Your task to perform on an android device: check out phone information Image 0: 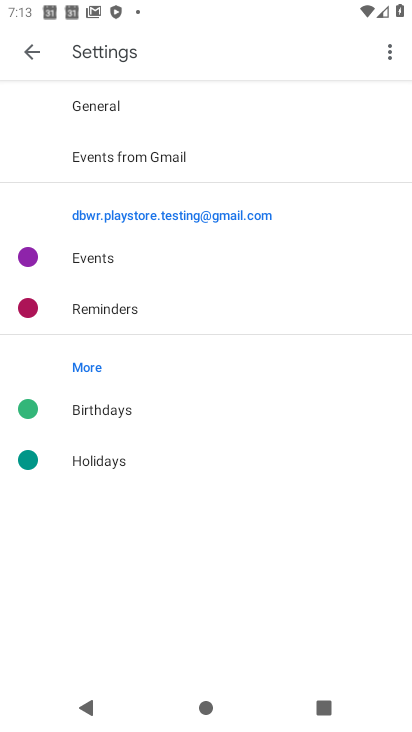
Step 0: press home button
Your task to perform on an android device: check out phone information Image 1: 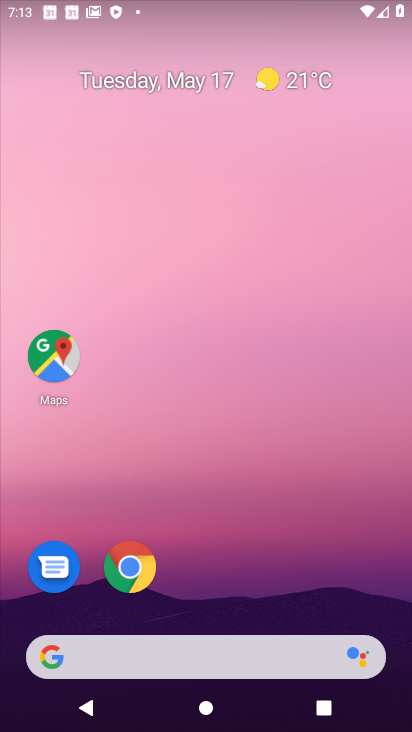
Step 1: drag from (244, 531) to (124, 75)
Your task to perform on an android device: check out phone information Image 2: 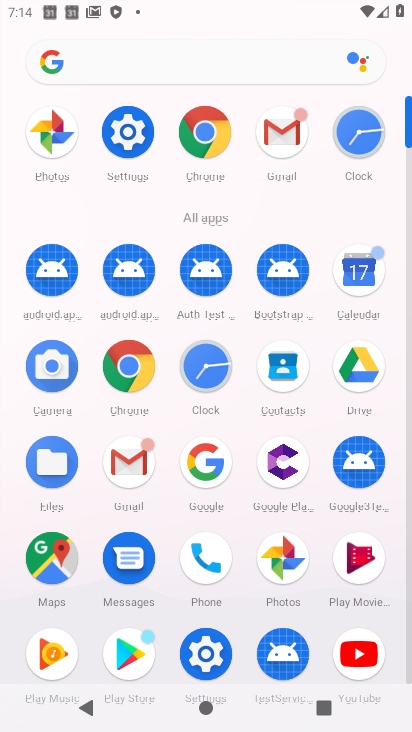
Step 2: click (128, 129)
Your task to perform on an android device: check out phone information Image 3: 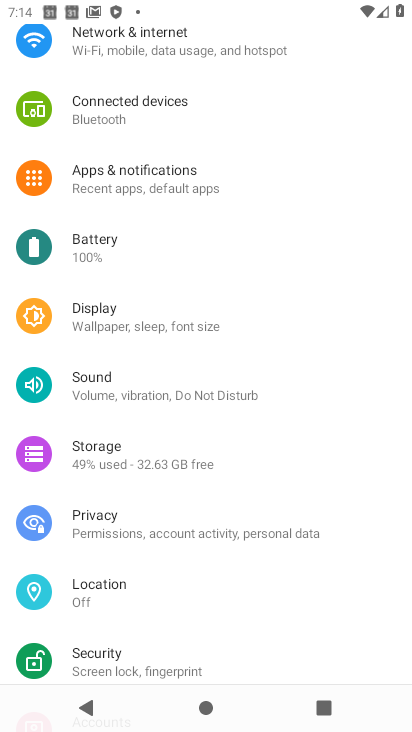
Step 3: drag from (202, 559) to (127, 87)
Your task to perform on an android device: check out phone information Image 4: 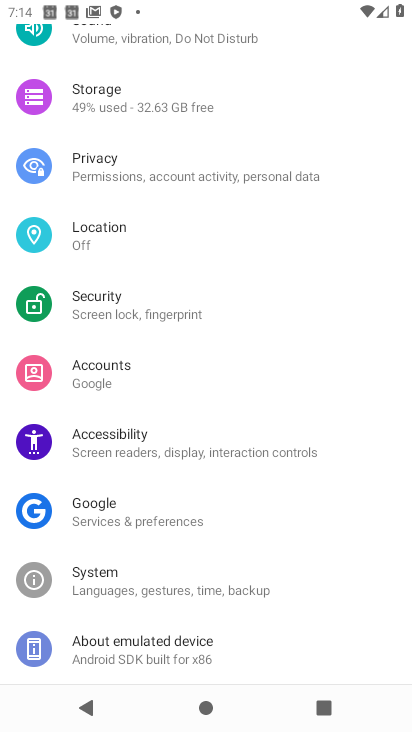
Step 4: click (130, 641)
Your task to perform on an android device: check out phone information Image 5: 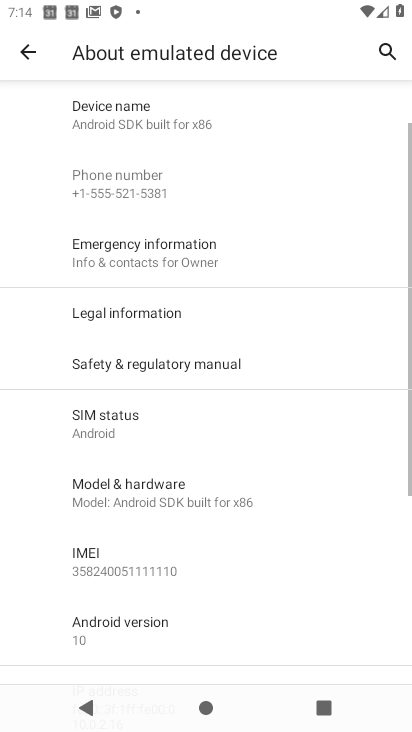
Step 5: task complete